Your task to perform on an android device: Clear all items from cart on amazon. Image 0: 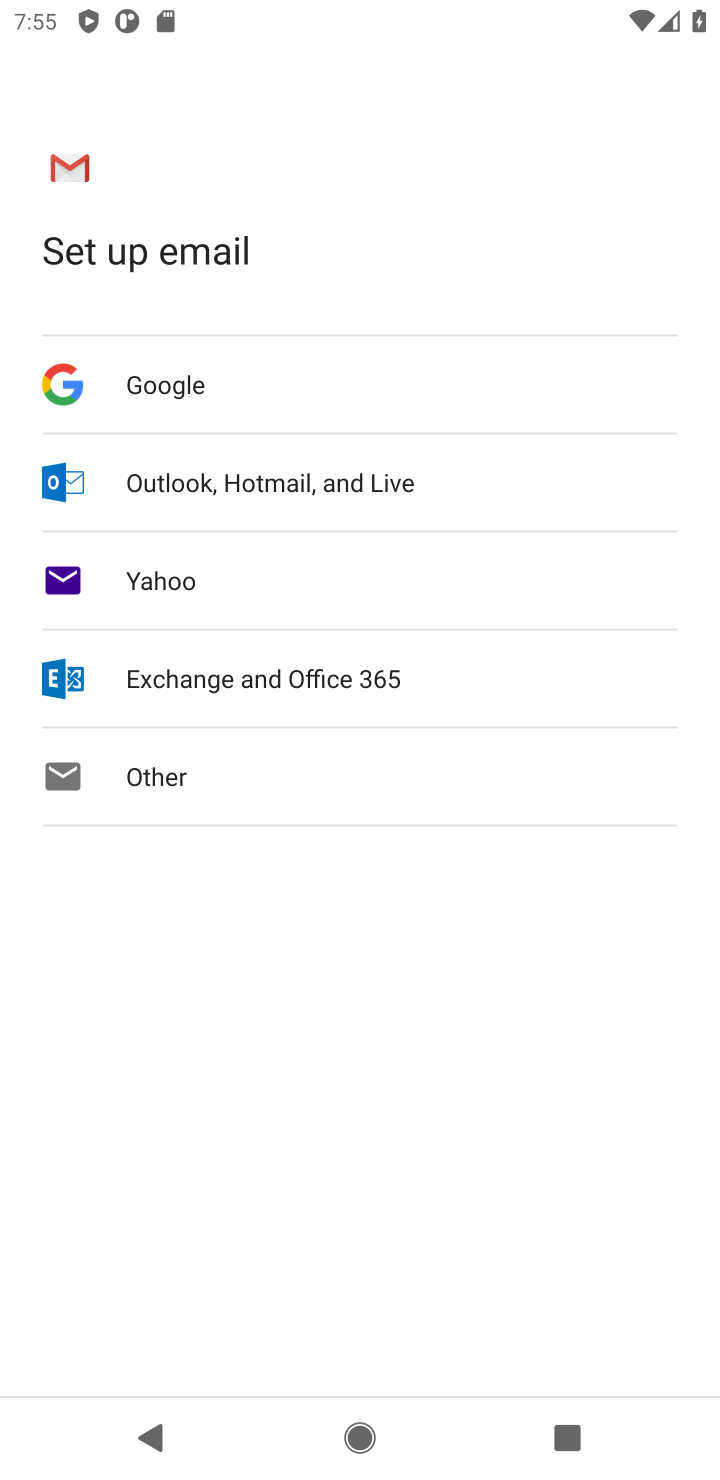
Step 0: press home button
Your task to perform on an android device: Clear all items from cart on amazon. Image 1: 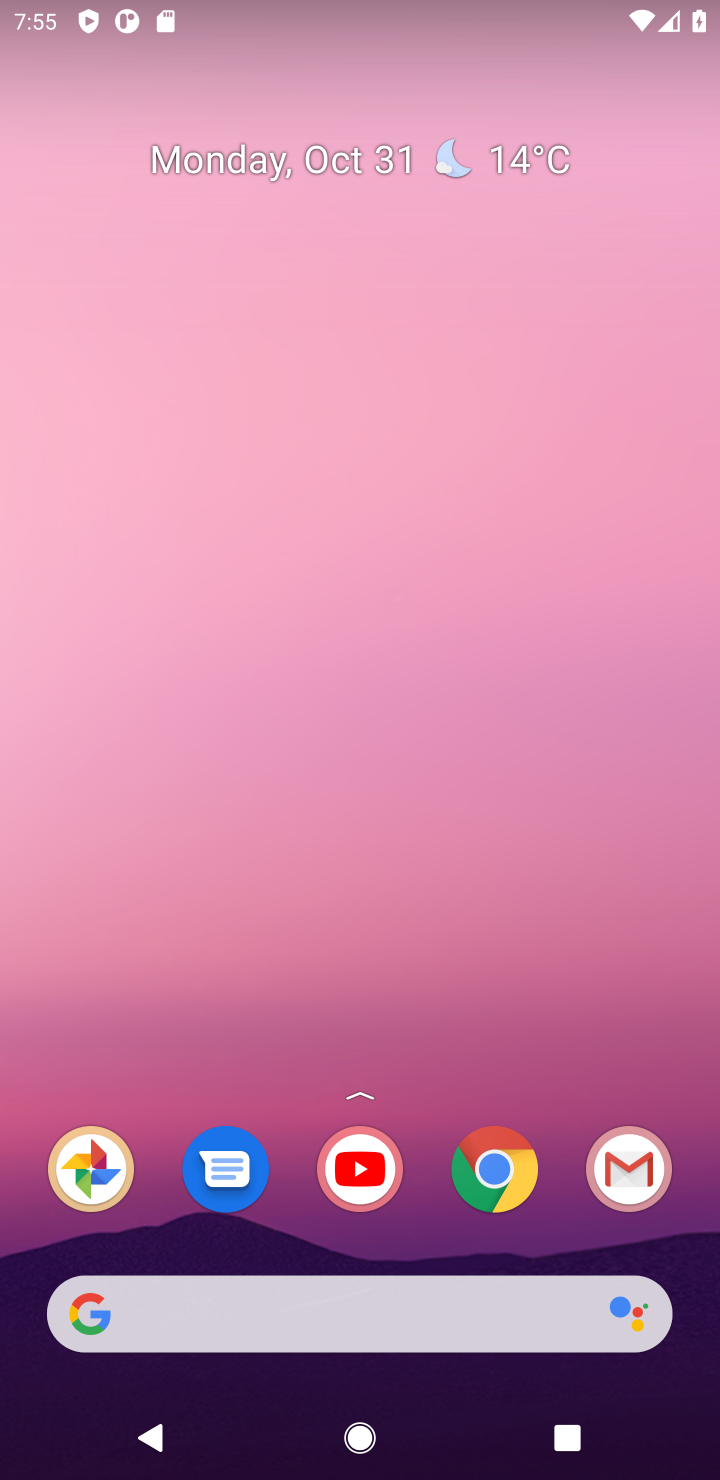
Step 1: drag from (258, 1177) to (288, 576)
Your task to perform on an android device: Clear all items from cart on amazon. Image 2: 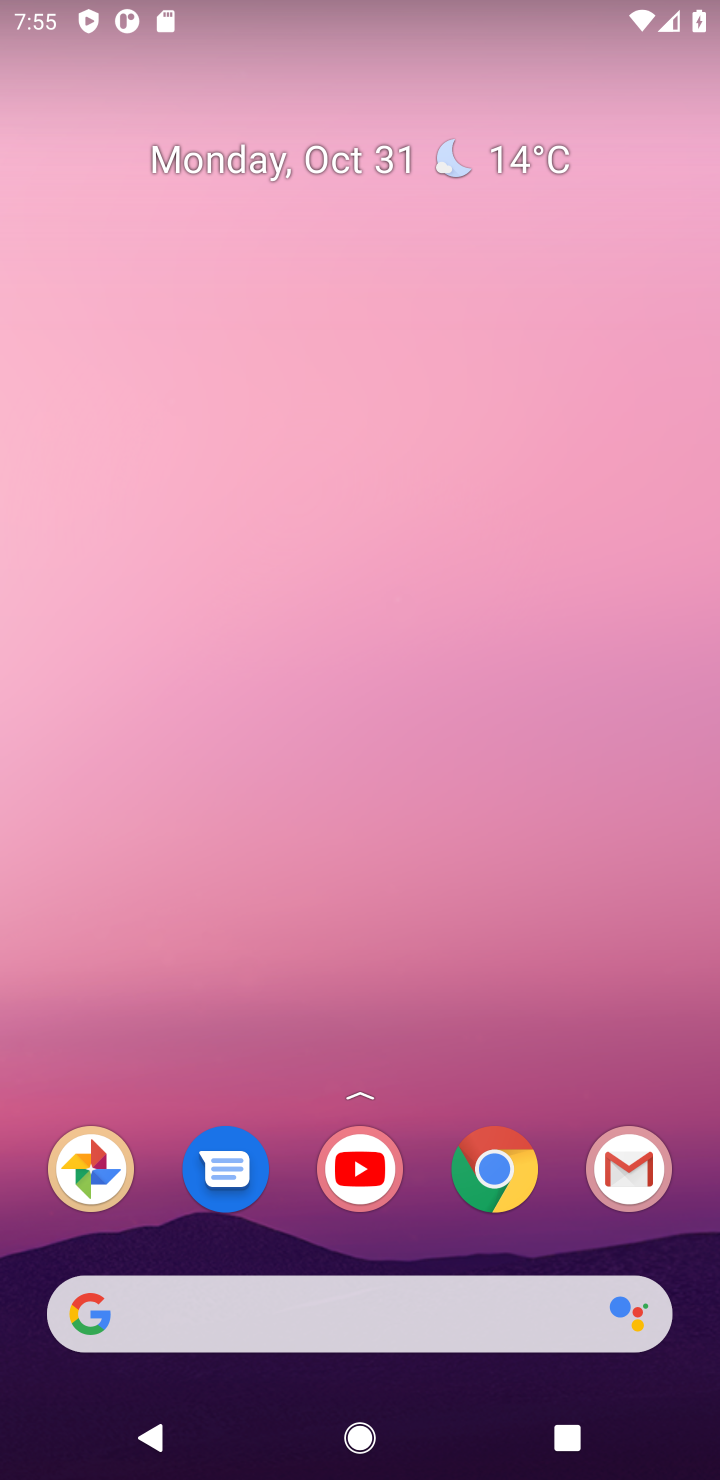
Step 2: drag from (283, 1186) to (352, 307)
Your task to perform on an android device: Clear all items from cart on amazon. Image 3: 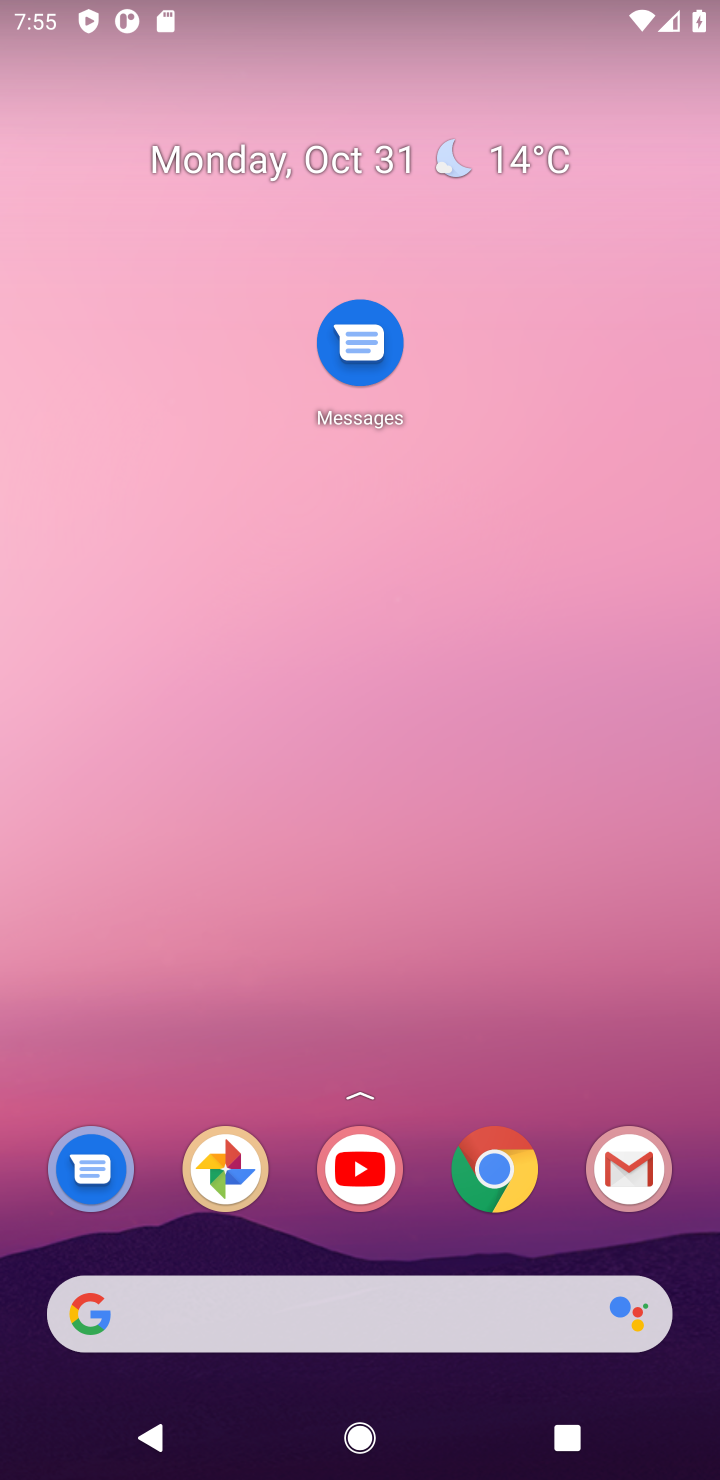
Step 3: click (159, 737)
Your task to perform on an android device: Clear all items from cart on amazon. Image 4: 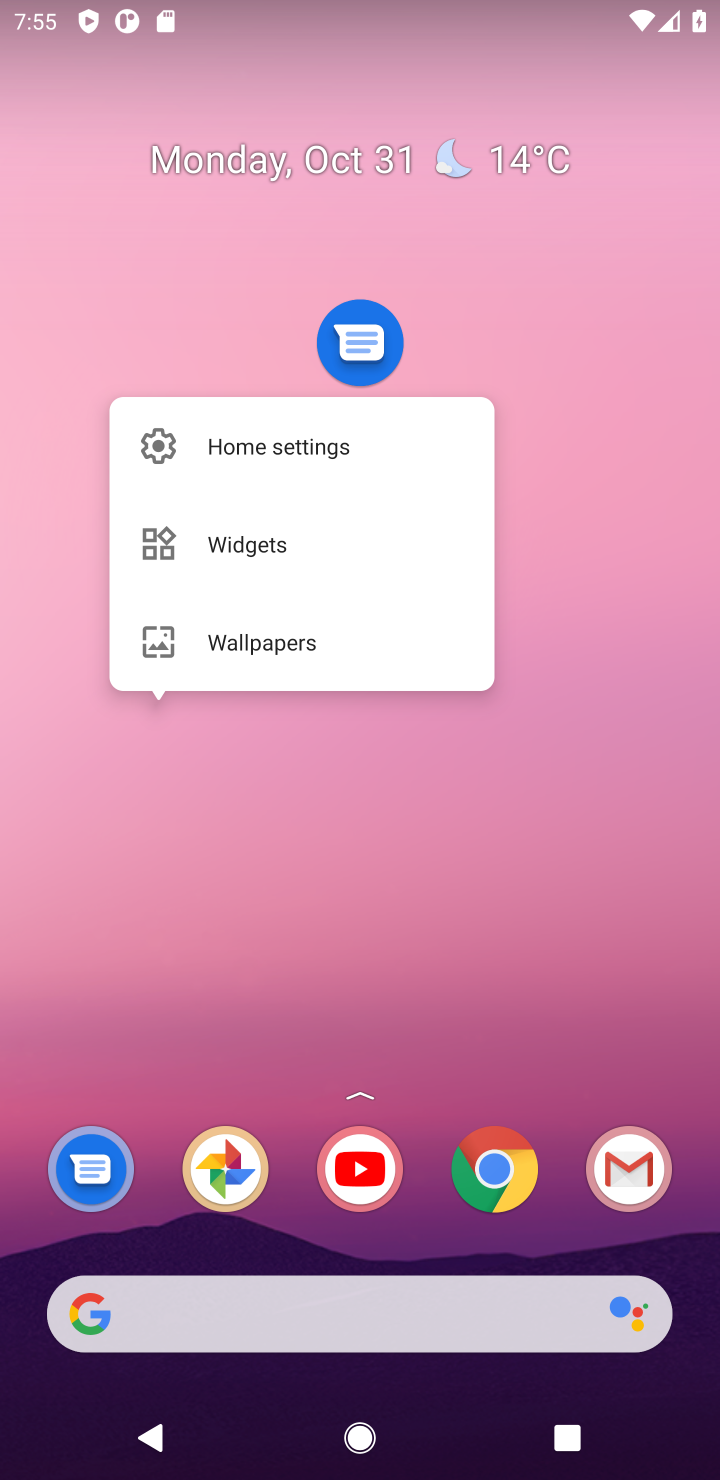
Step 4: click (257, 774)
Your task to perform on an android device: Clear all items from cart on amazon. Image 5: 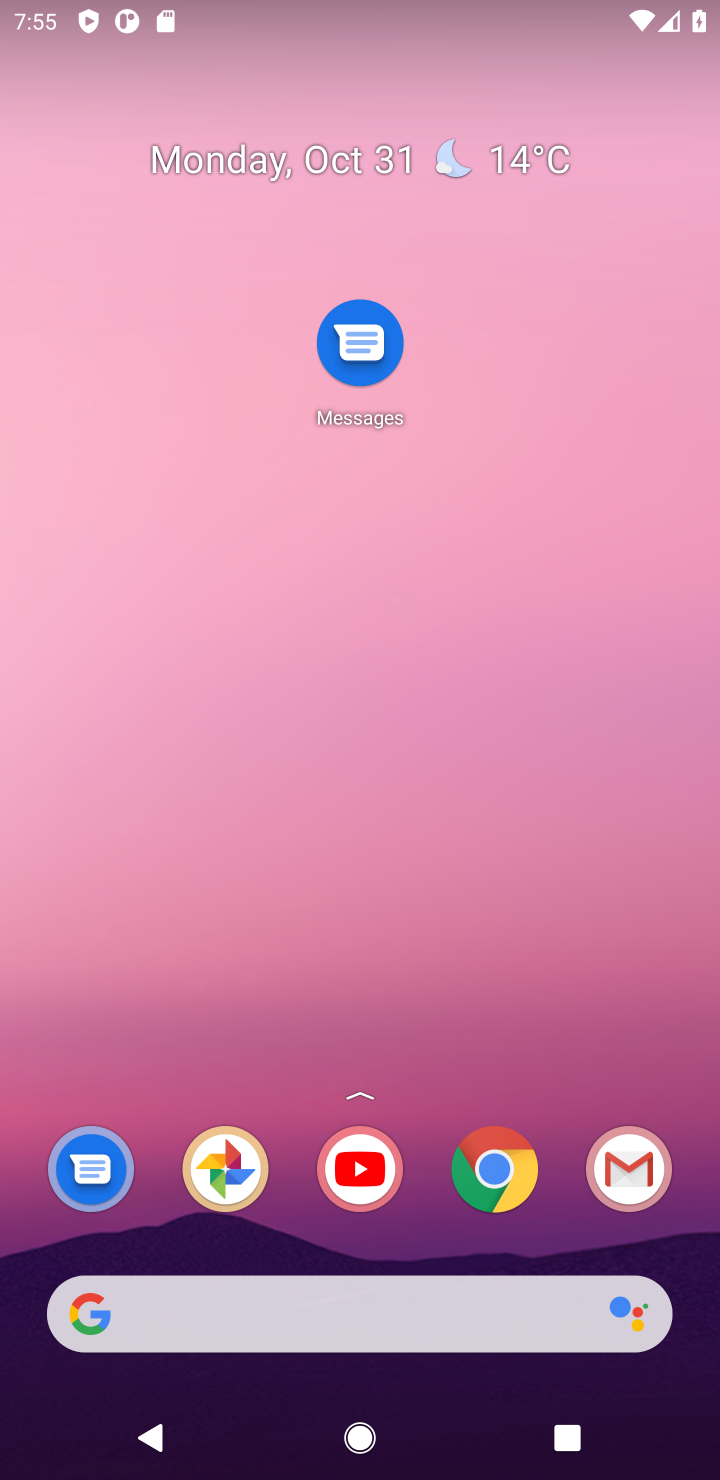
Step 5: drag from (307, 1297) to (266, 442)
Your task to perform on an android device: Clear all items from cart on amazon. Image 6: 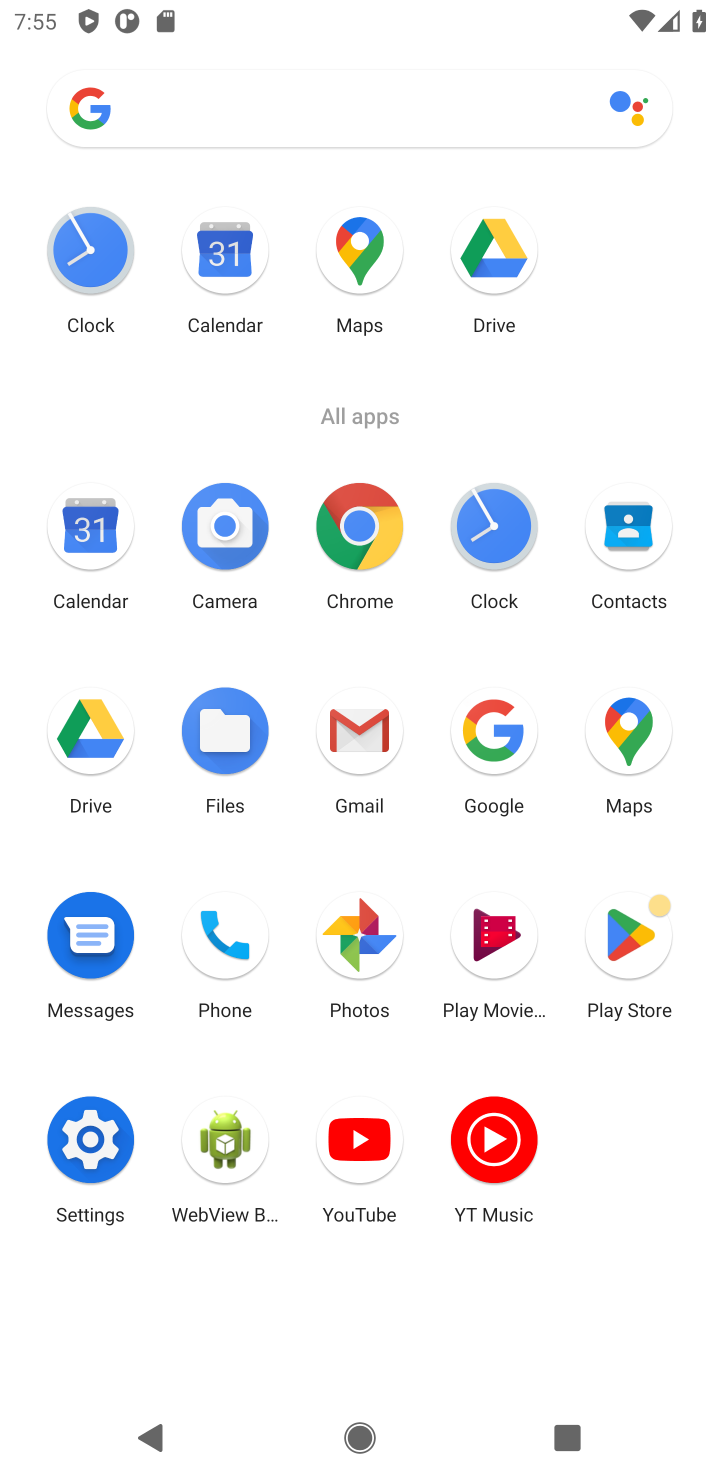
Step 6: click (475, 727)
Your task to perform on an android device: Clear all items from cart on amazon. Image 7: 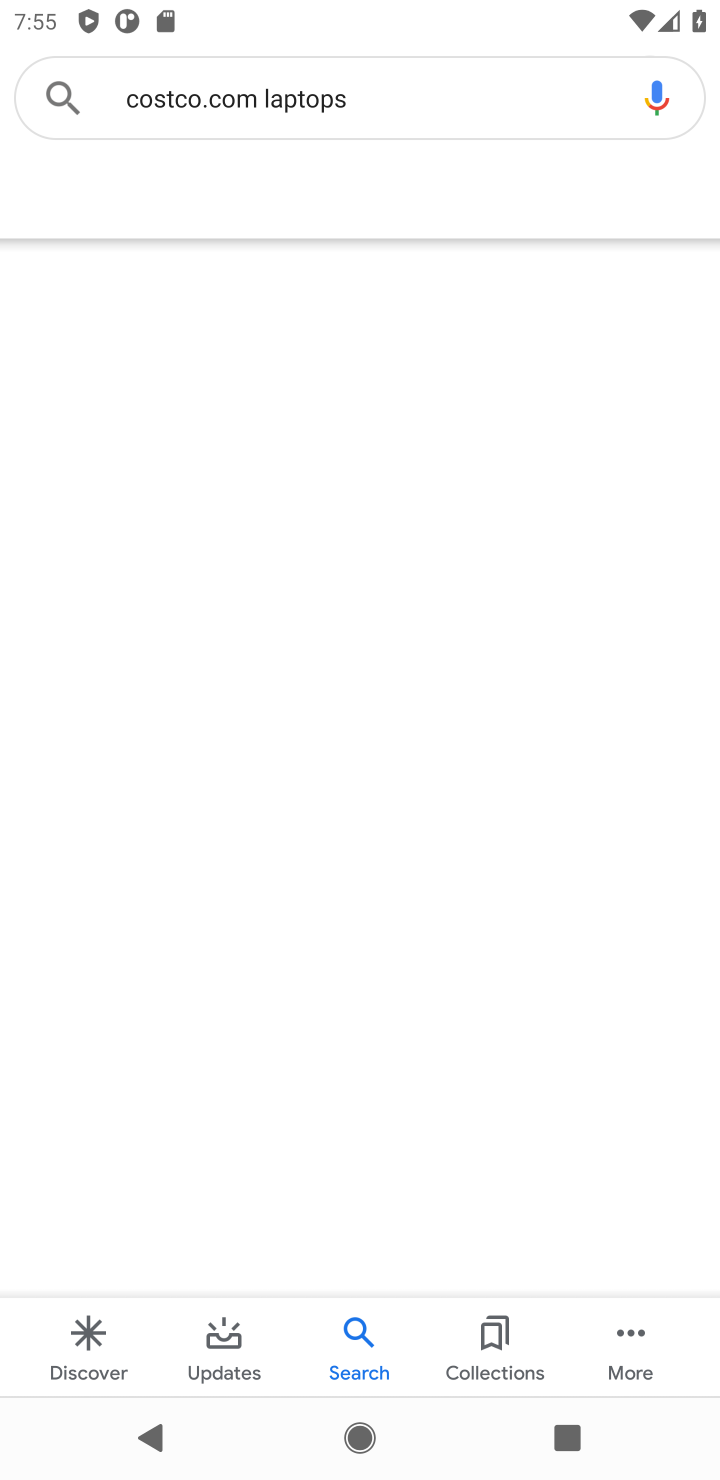
Step 7: click (391, 98)
Your task to perform on an android device: Clear all items from cart on amazon. Image 8: 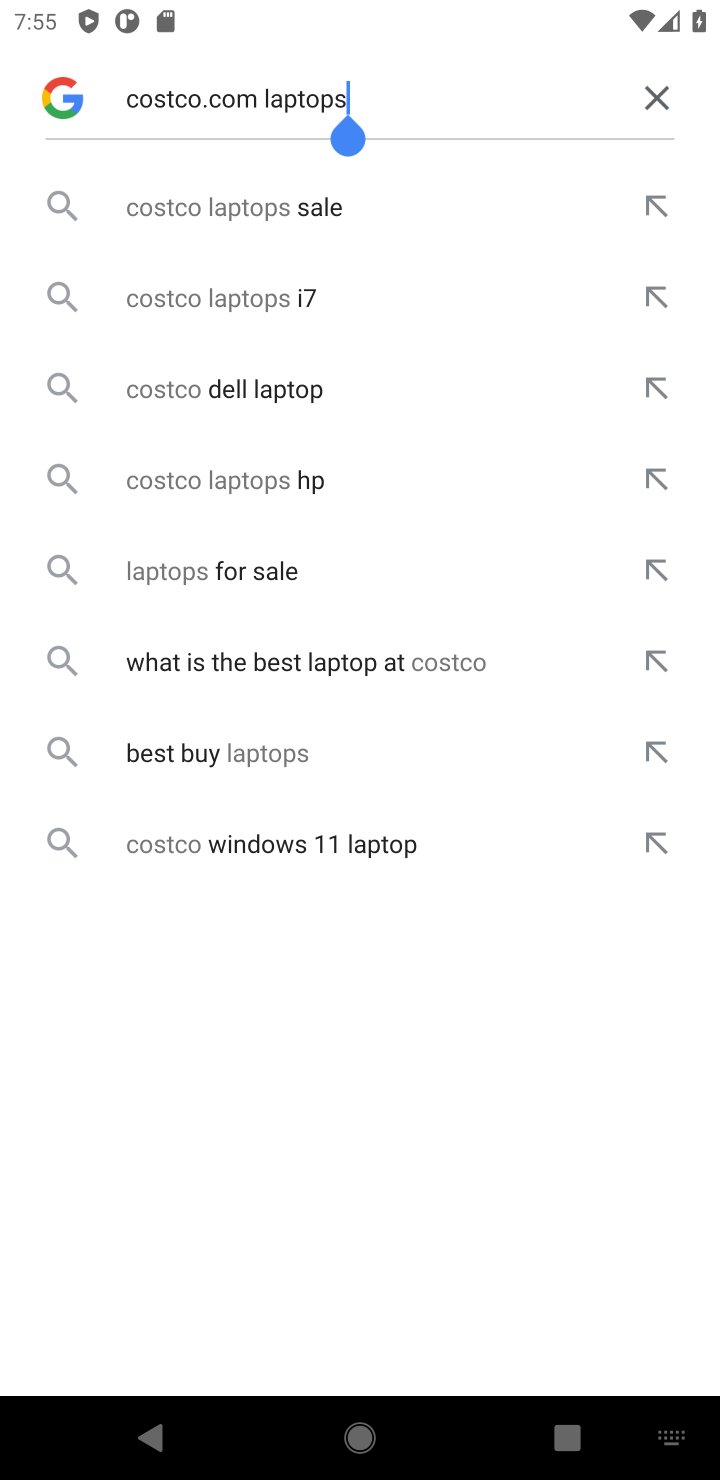
Step 8: click (675, 97)
Your task to perform on an android device: Clear all items from cart on amazon. Image 9: 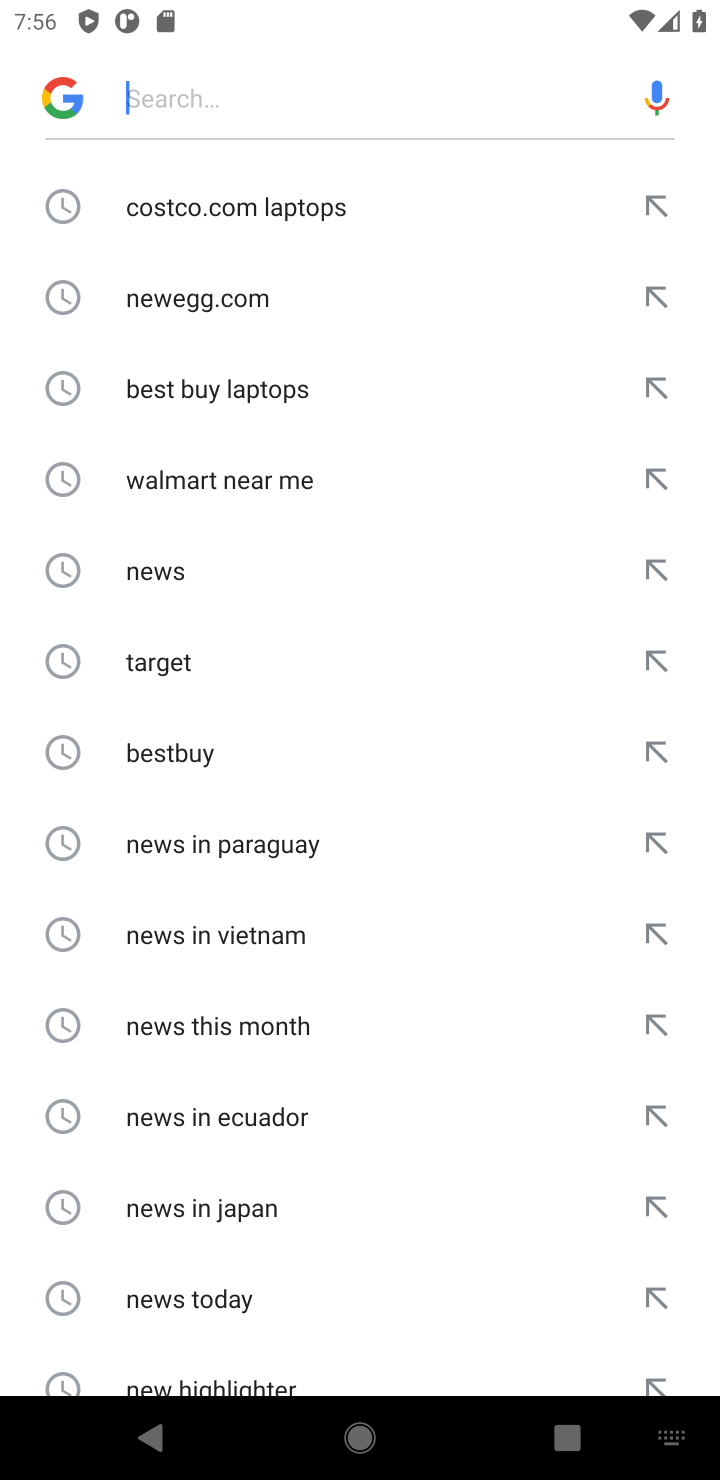
Step 9: click (325, 78)
Your task to perform on an android device: Clear all items from cart on amazon. Image 10: 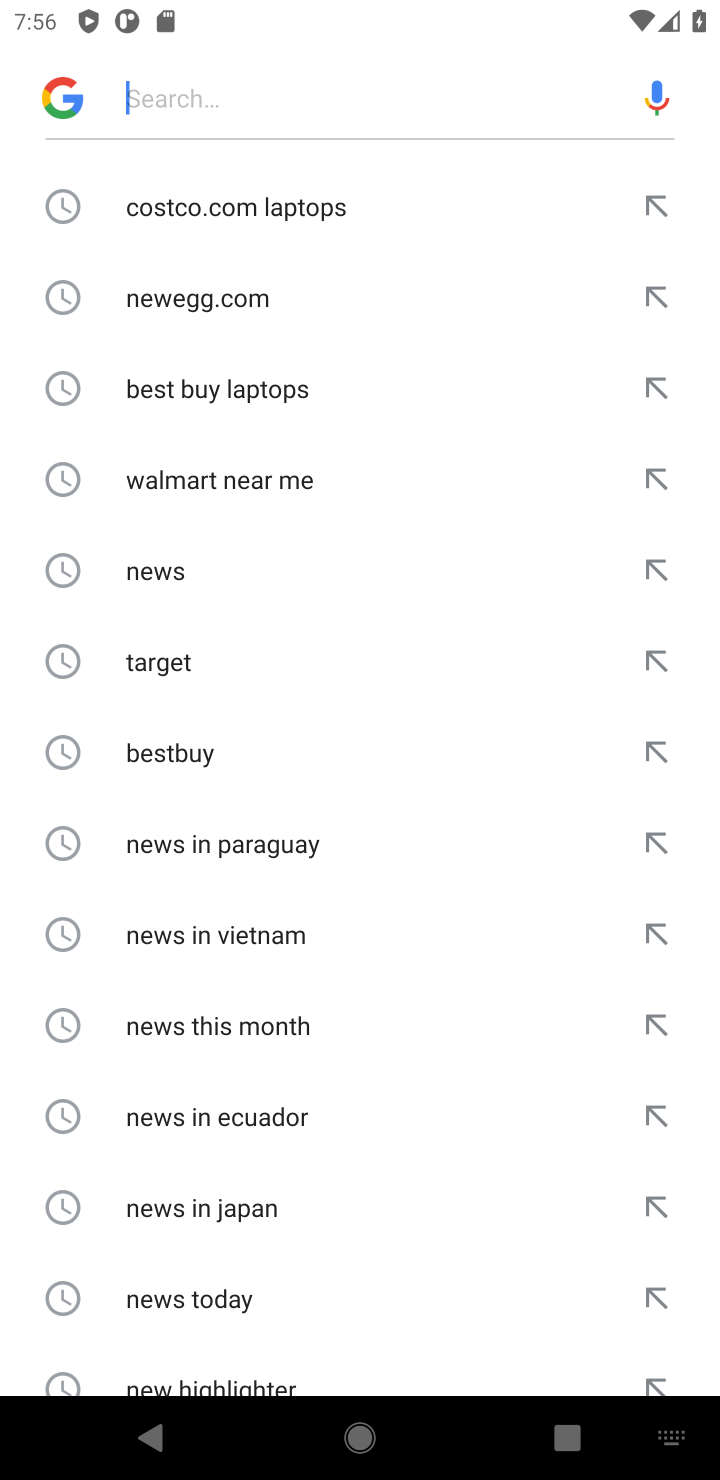
Step 10: type "amazon "
Your task to perform on an android device: Clear all items from cart on amazon. Image 11: 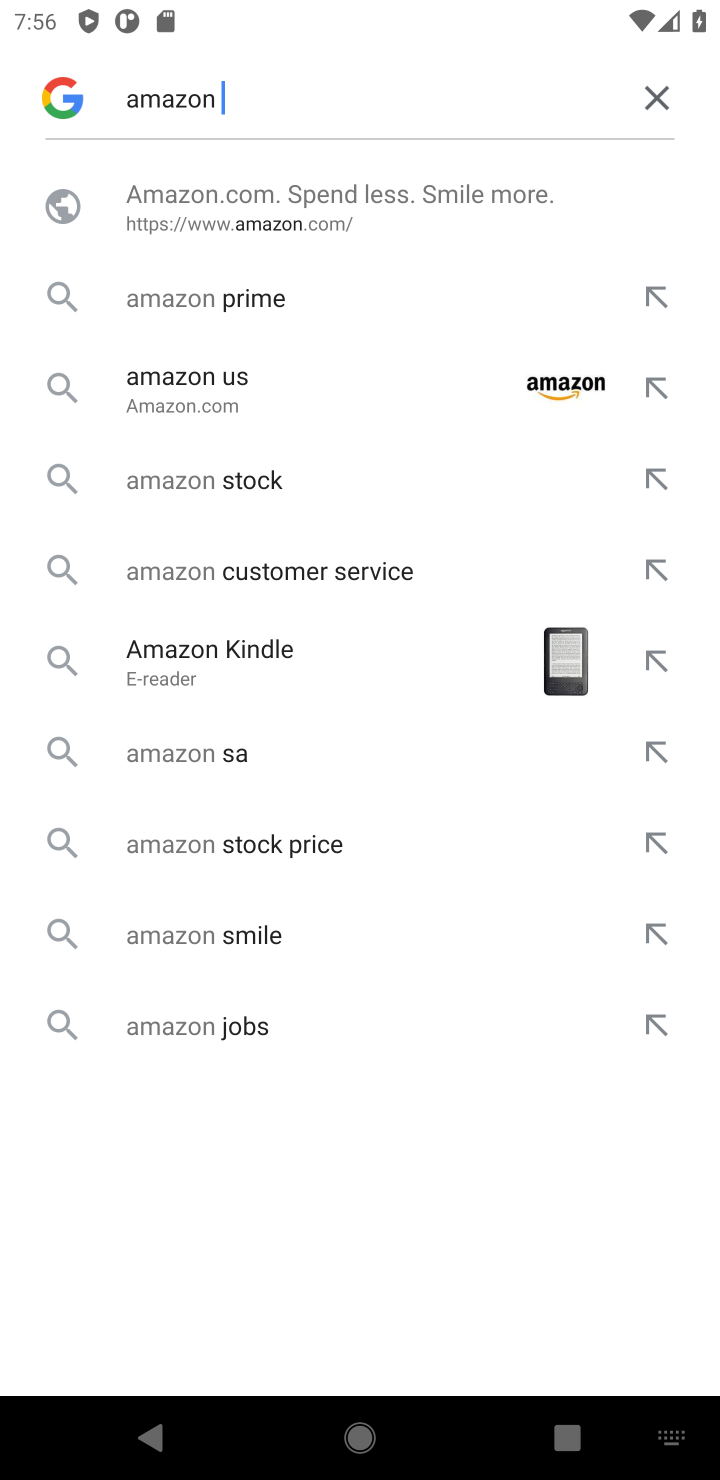
Step 11: click (234, 211)
Your task to perform on an android device: Clear all items from cart on amazon. Image 12: 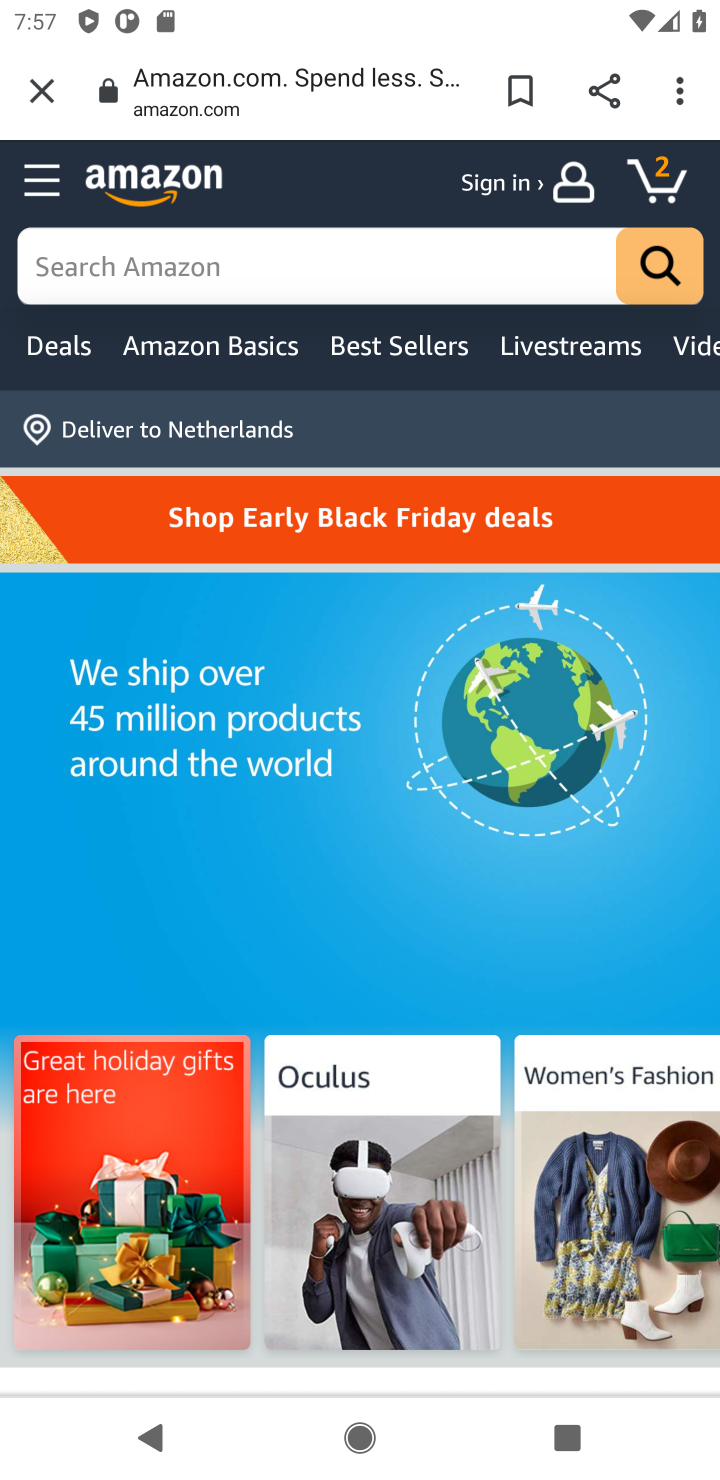
Step 12: click (673, 160)
Your task to perform on an android device: Clear all items from cart on amazon. Image 13: 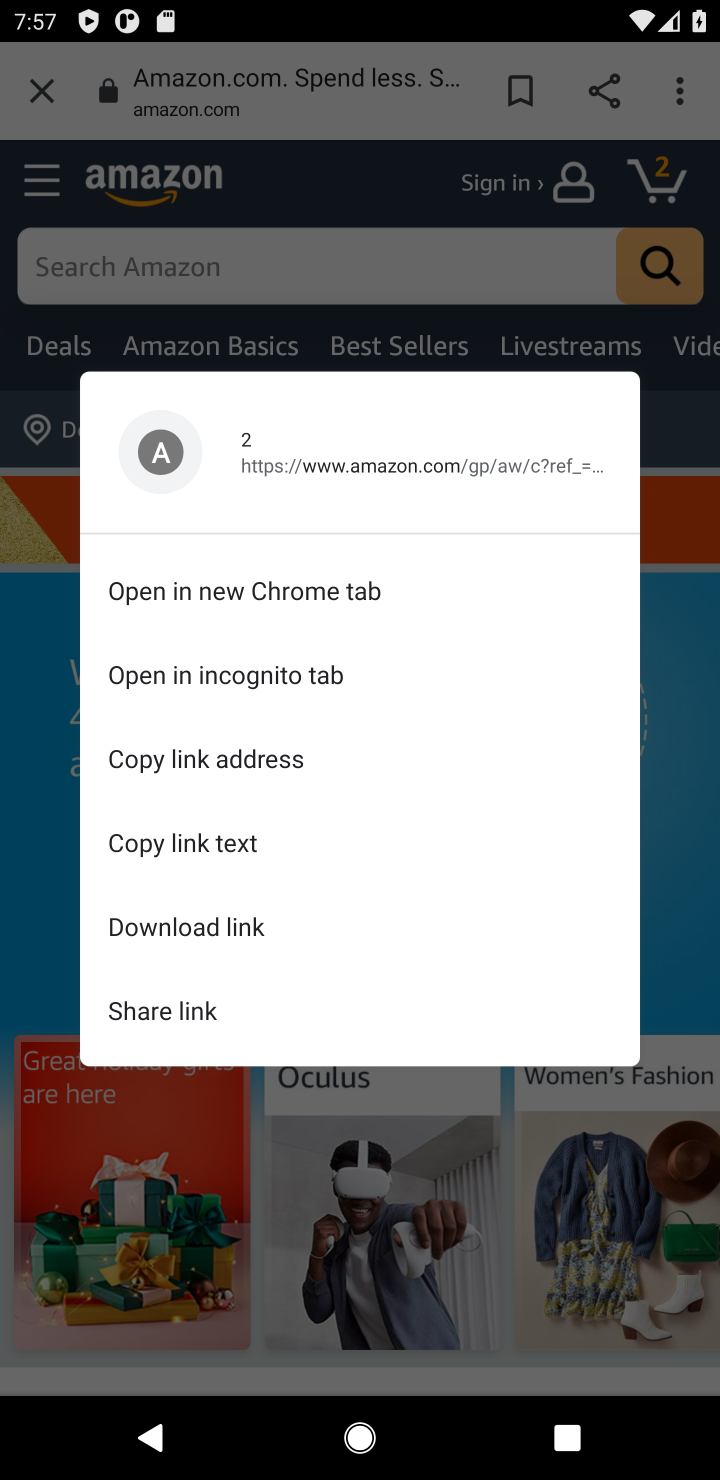
Step 13: click (655, 181)
Your task to perform on an android device: Clear all items from cart on amazon. Image 14: 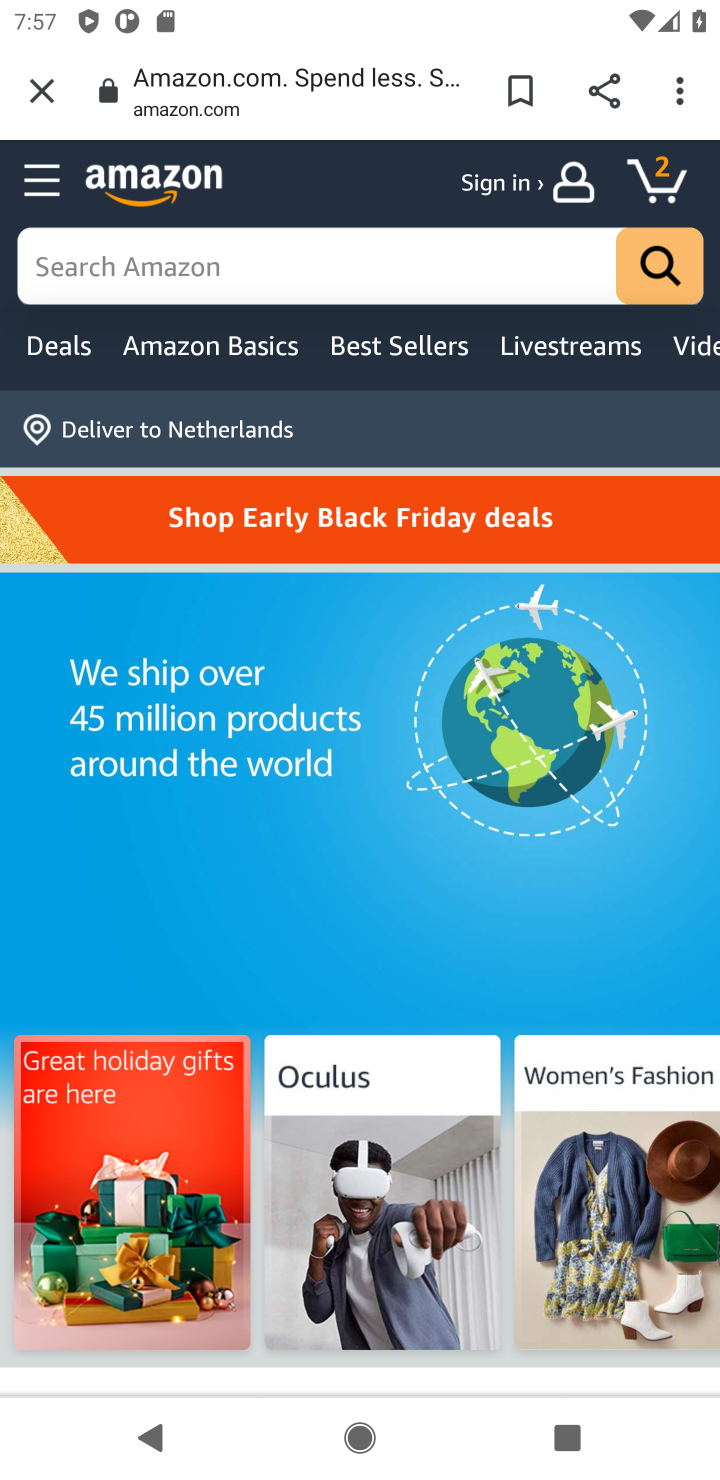
Step 14: click (655, 181)
Your task to perform on an android device: Clear all items from cart on amazon. Image 15: 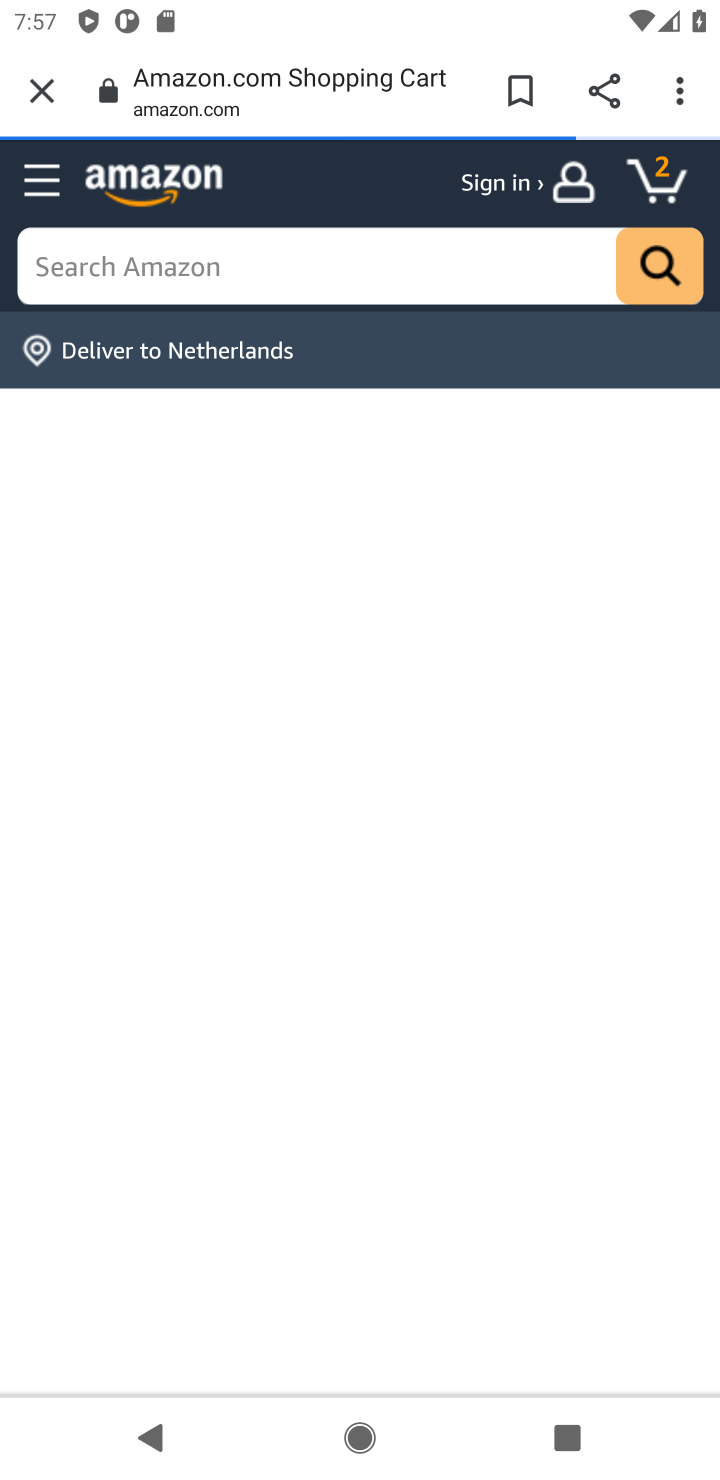
Step 15: click (655, 177)
Your task to perform on an android device: Clear all items from cart on amazon. Image 16: 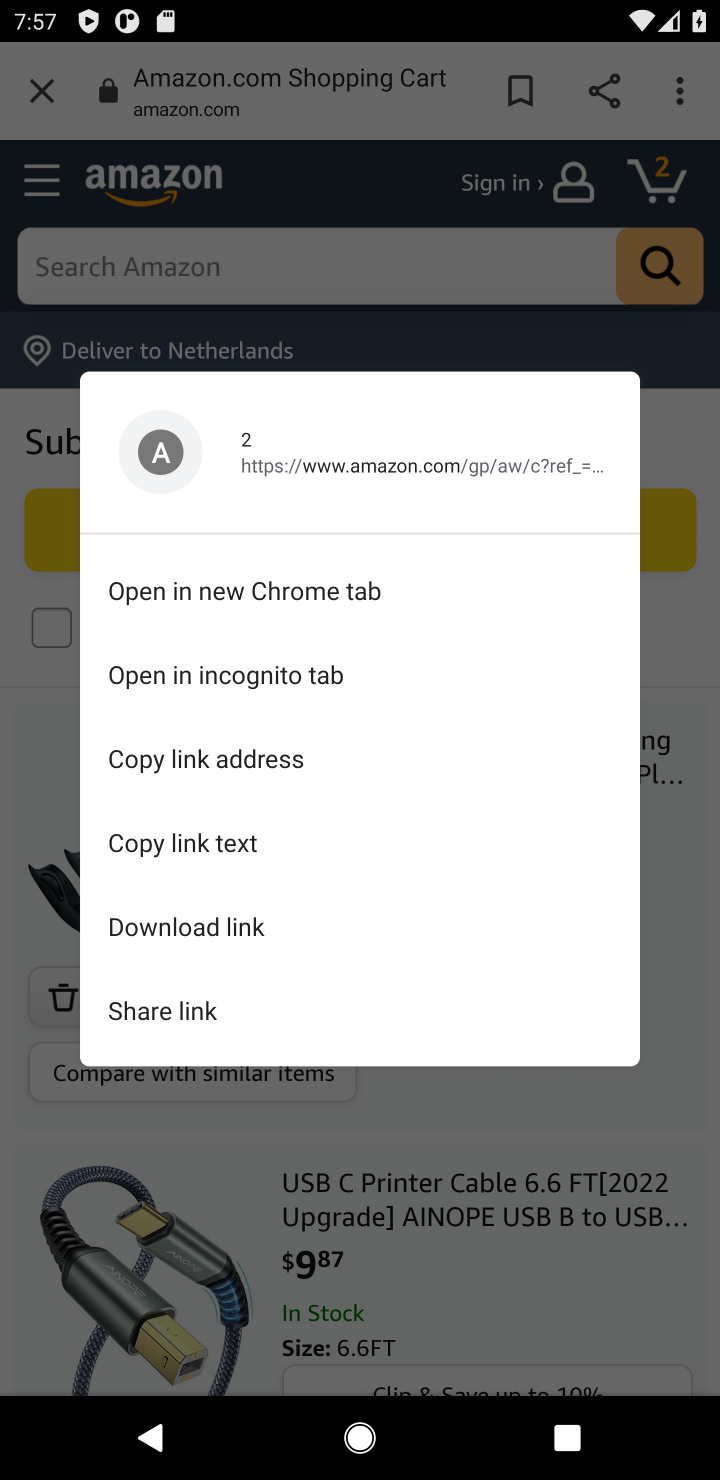
Step 16: click (685, 704)
Your task to perform on an android device: Clear all items from cart on amazon. Image 17: 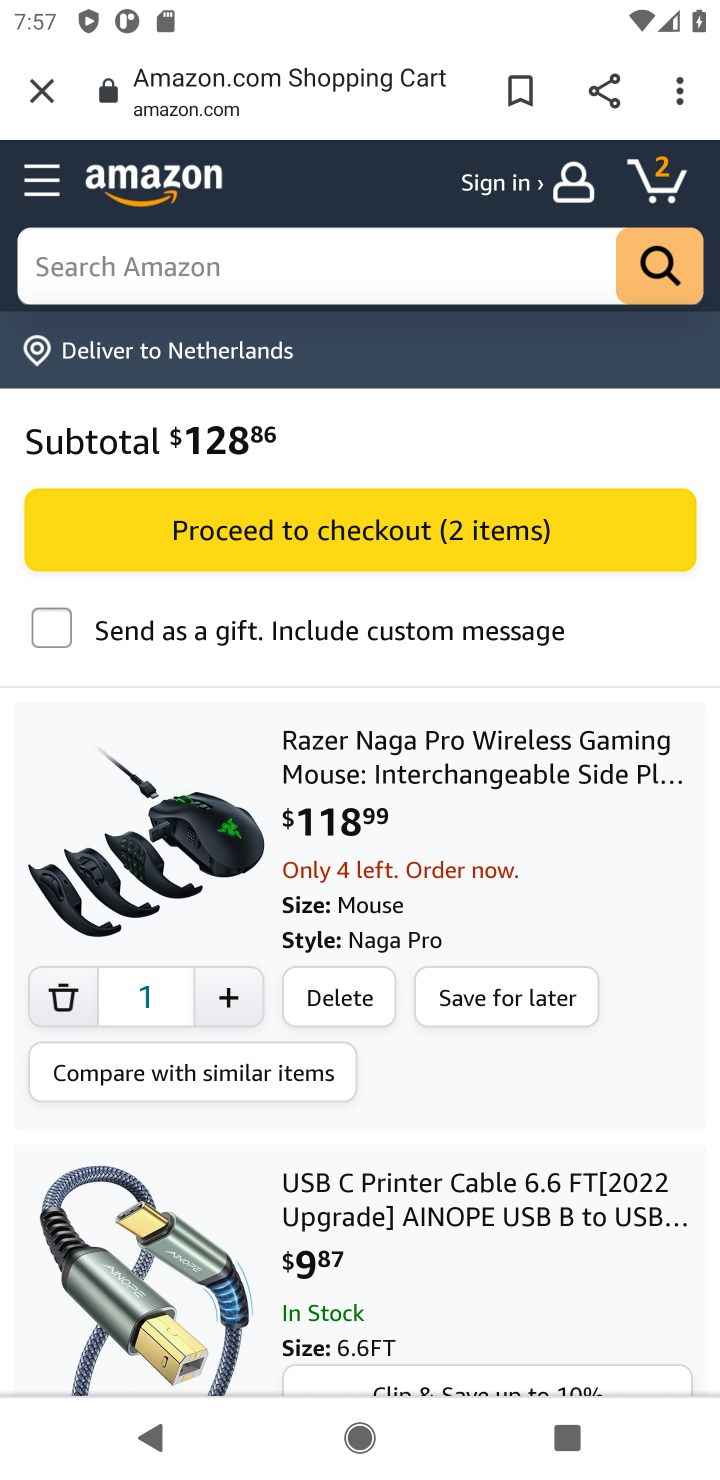
Step 17: click (340, 1004)
Your task to perform on an android device: Clear all items from cart on amazon. Image 18: 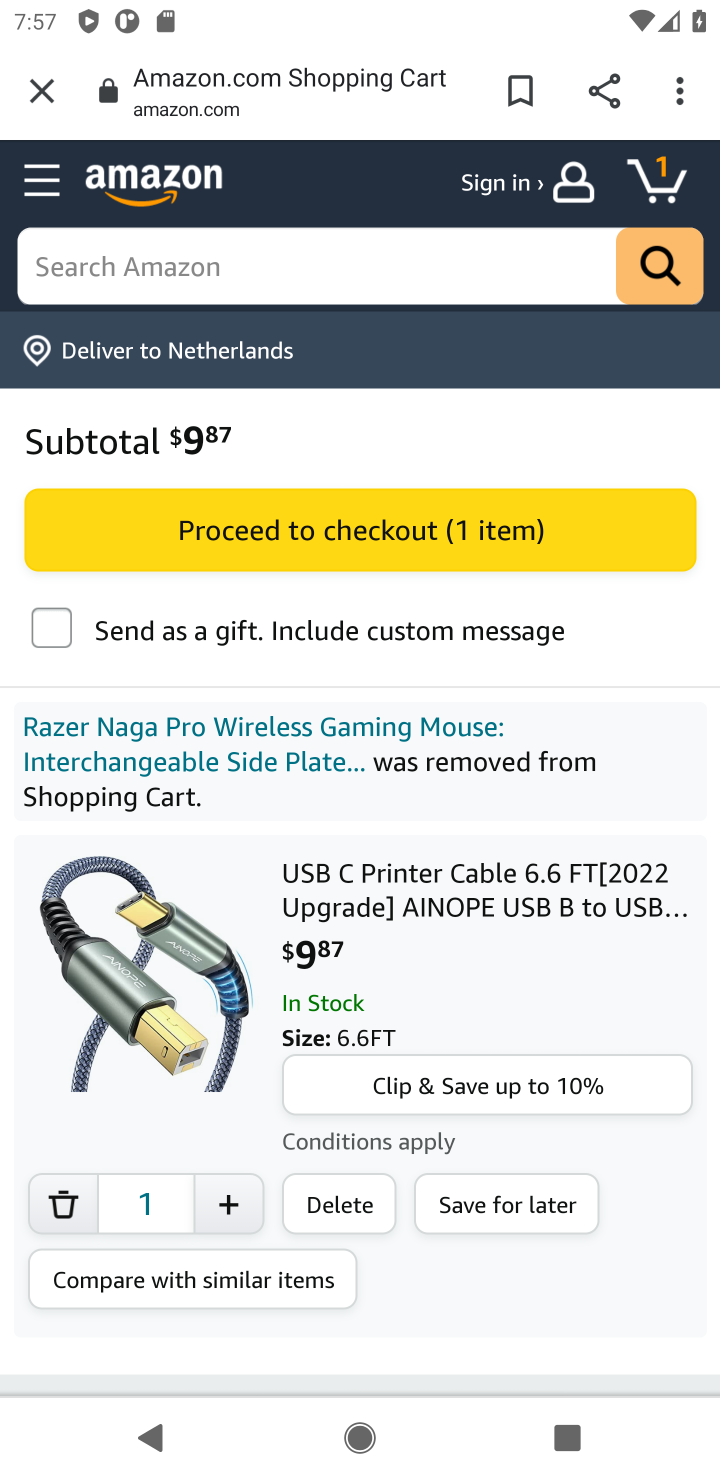
Step 18: click (328, 1212)
Your task to perform on an android device: Clear all items from cart on amazon. Image 19: 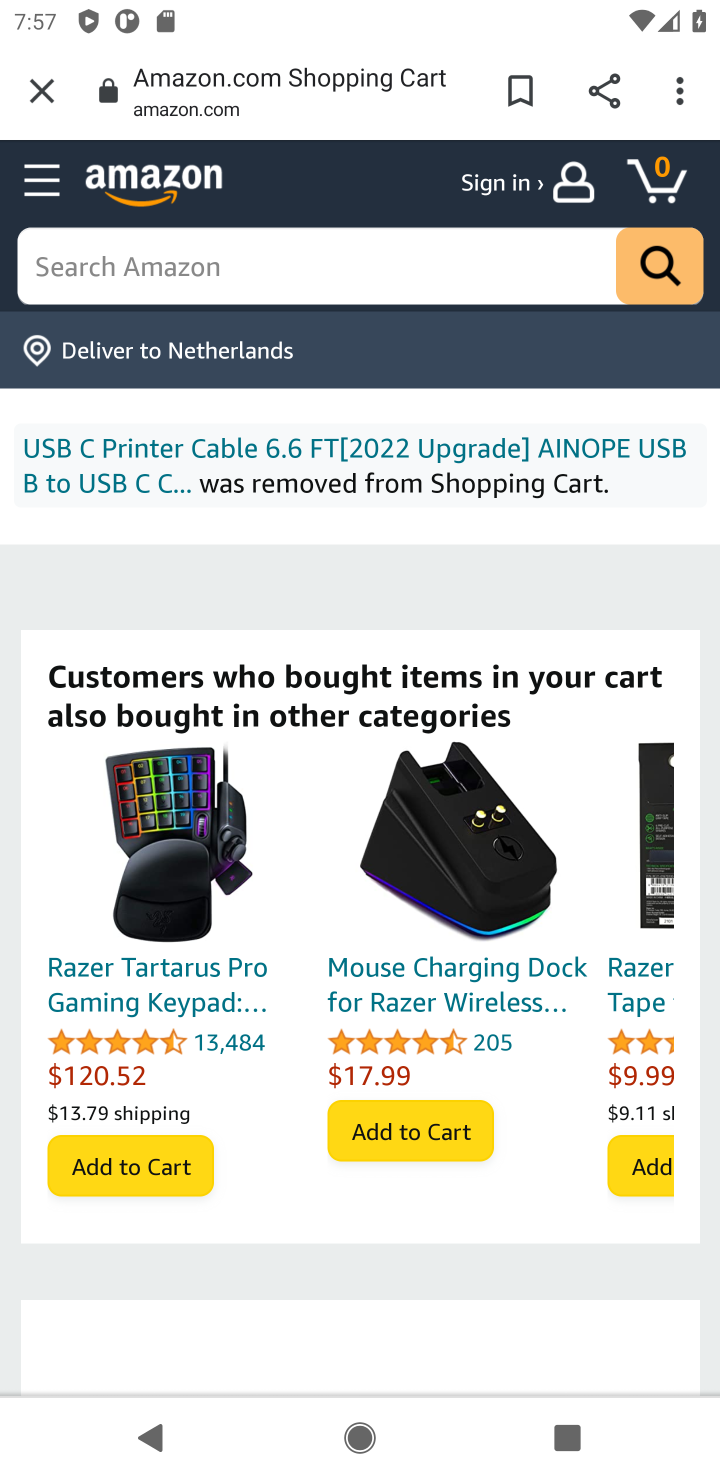
Step 19: task complete